Your task to perform on an android device: star an email in the gmail app Image 0: 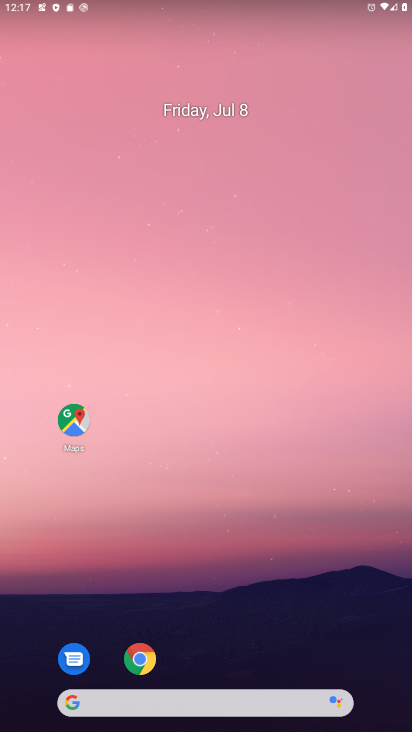
Step 0: drag from (225, 613) to (160, 273)
Your task to perform on an android device: star an email in the gmail app Image 1: 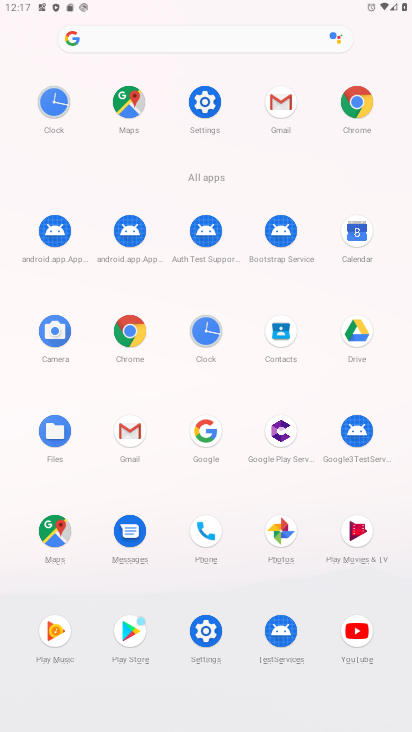
Step 1: click (283, 102)
Your task to perform on an android device: star an email in the gmail app Image 2: 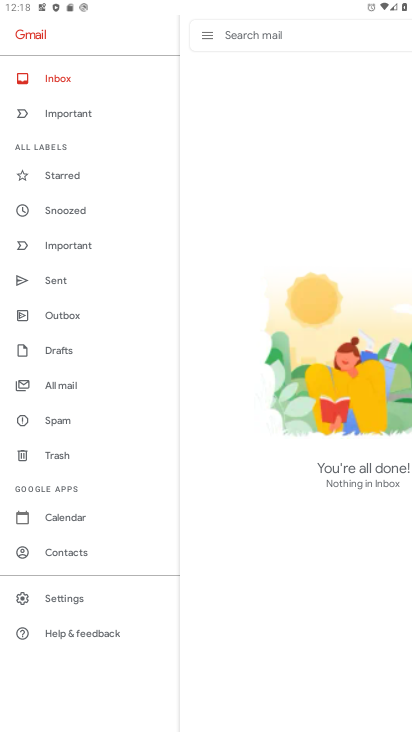
Step 2: task complete